Your task to perform on an android device: Go to accessibility settings Image 0: 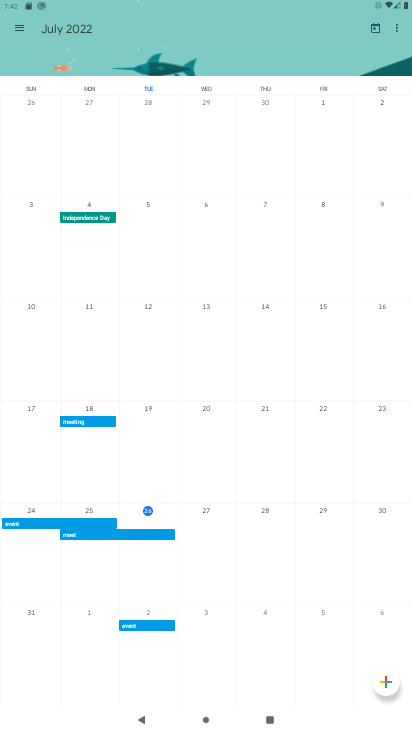
Step 0: press home button
Your task to perform on an android device: Go to accessibility settings Image 1: 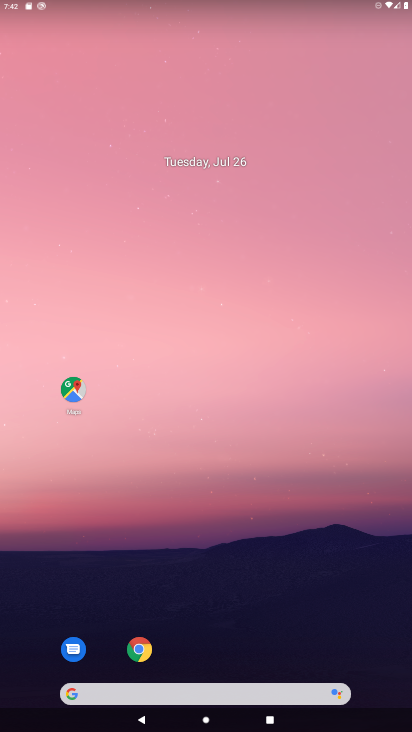
Step 1: drag from (226, 648) to (261, 267)
Your task to perform on an android device: Go to accessibility settings Image 2: 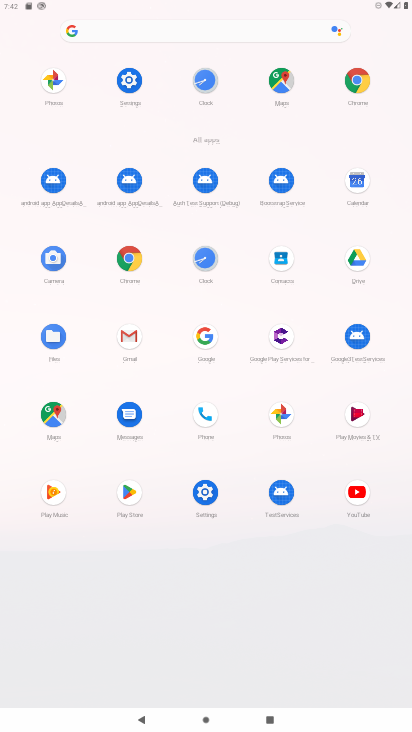
Step 2: click (129, 66)
Your task to perform on an android device: Go to accessibility settings Image 3: 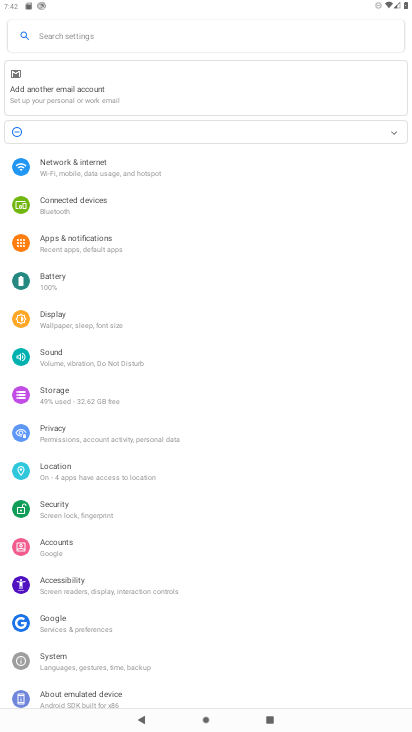
Step 3: click (85, 580)
Your task to perform on an android device: Go to accessibility settings Image 4: 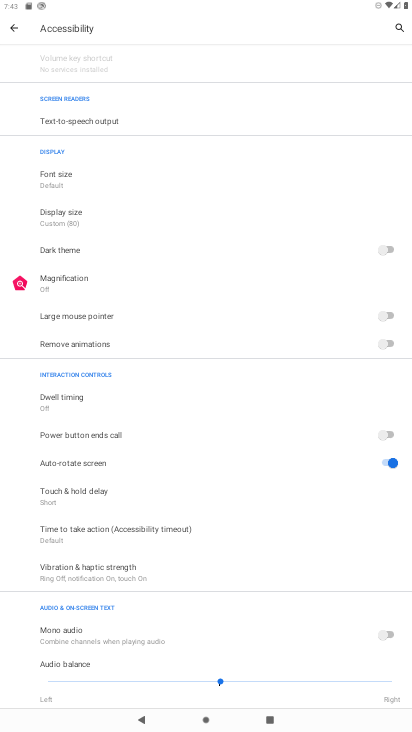
Step 4: task complete